Your task to perform on an android device: Open Android settings Image 0: 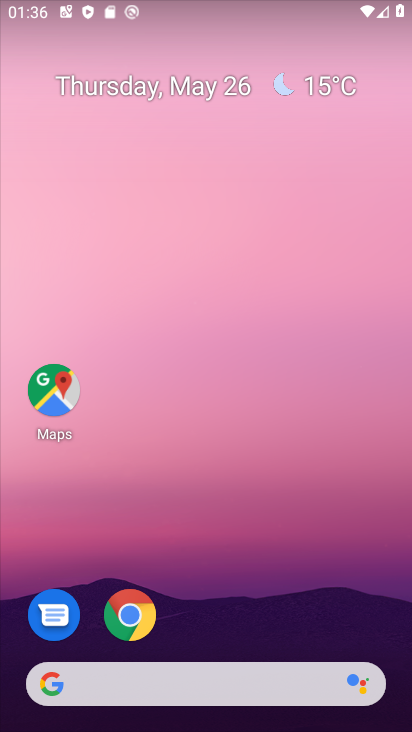
Step 0: click (203, 612)
Your task to perform on an android device: Open Android settings Image 1: 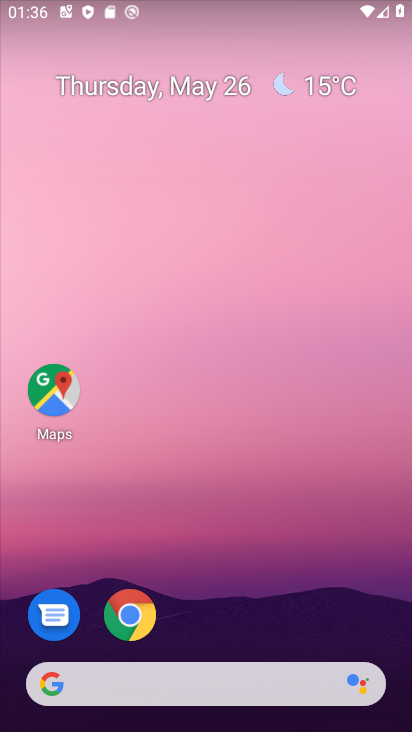
Step 1: drag from (203, 612) to (225, 99)
Your task to perform on an android device: Open Android settings Image 2: 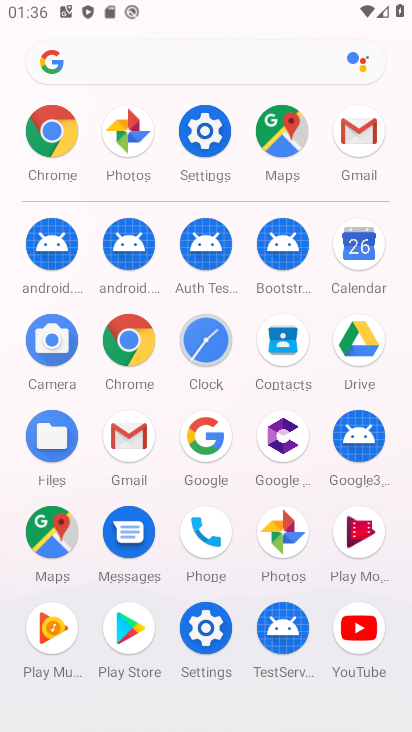
Step 2: click (200, 121)
Your task to perform on an android device: Open Android settings Image 3: 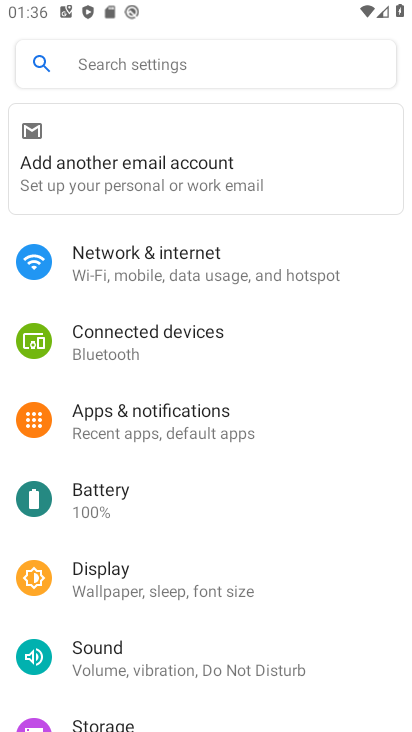
Step 3: drag from (162, 656) to (202, 34)
Your task to perform on an android device: Open Android settings Image 4: 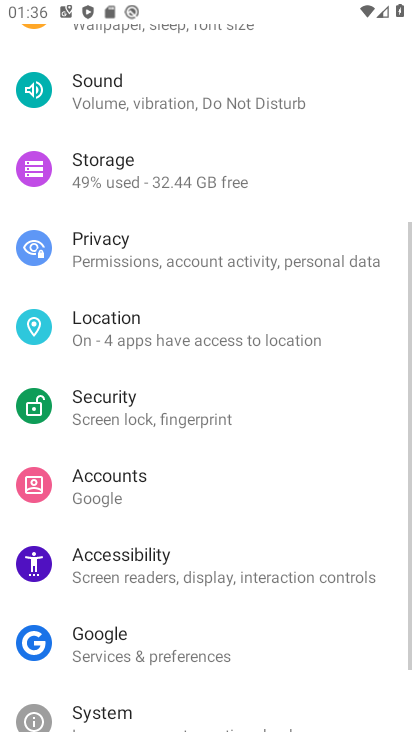
Step 4: drag from (153, 607) to (249, 32)
Your task to perform on an android device: Open Android settings Image 5: 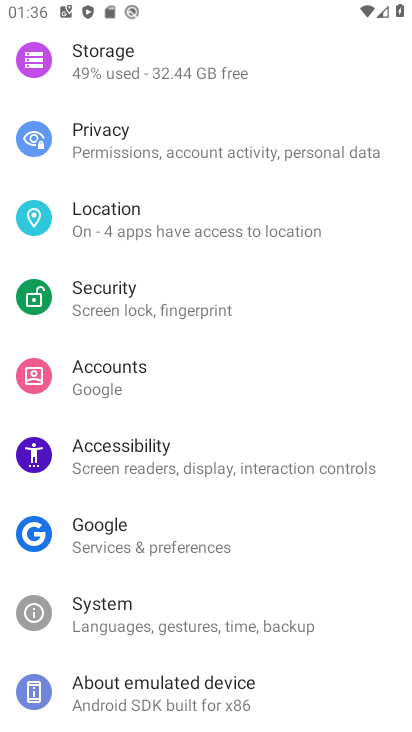
Step 5: click (142, 686)
Your task to perform on an android device: Open Android settings Image 6: 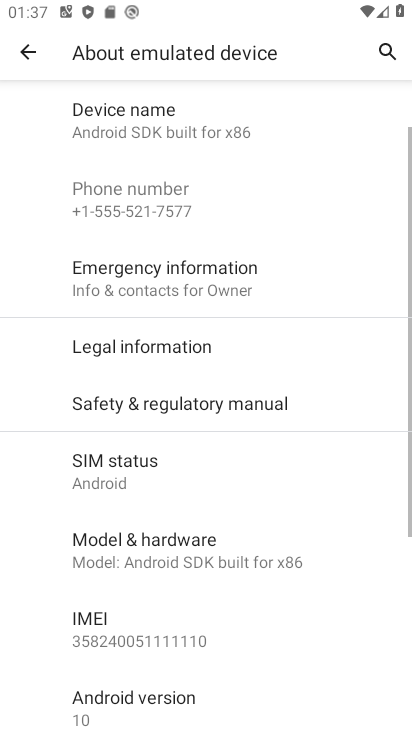
Step 6: click (130, 713)
Your task to perform on an android device: Open Android settings Image 7: 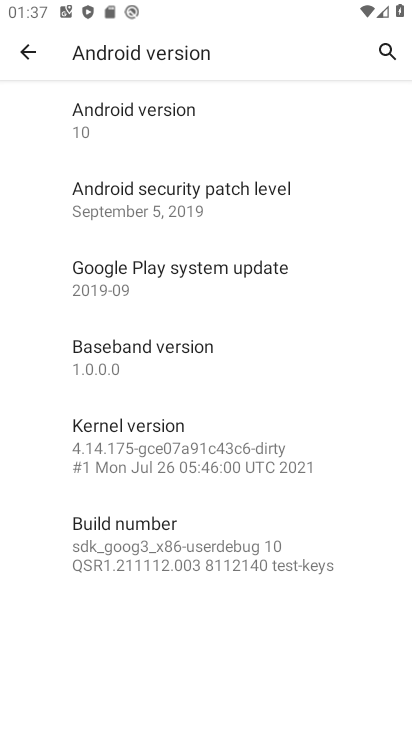
Step 7: click (183, 143)
Your task to perform on an android device: Open Android settings Image 8: 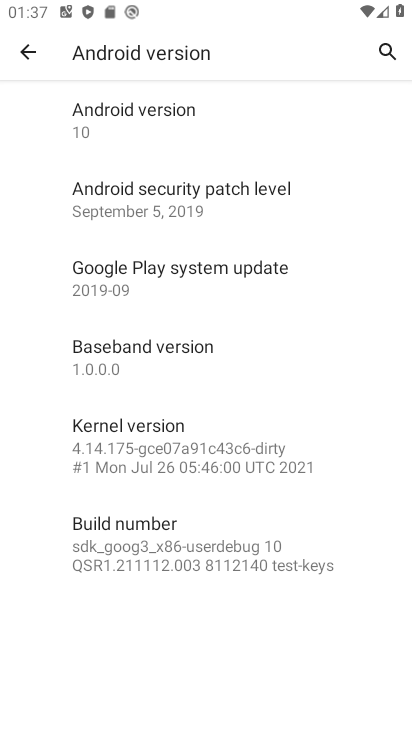
Step 8: task complete